Your task to perform on an android device: Open Yahoo.com Image 0: 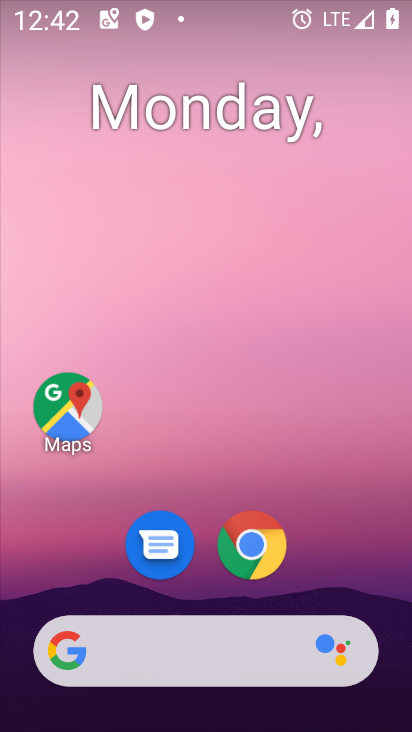
Step 0: drag from (389, 601) to (384, 246)
Your task to perform on an android device: Open Yahoo.com Image 1: 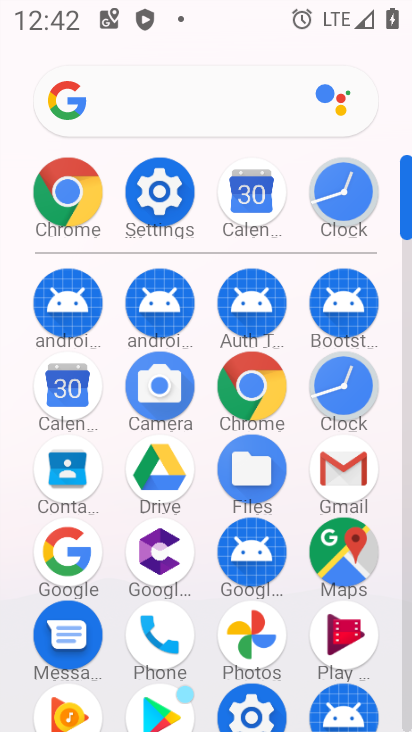
Step 1: click (259, 415)
Your task to perform on an android device: Open Yahoo.com Image 2: 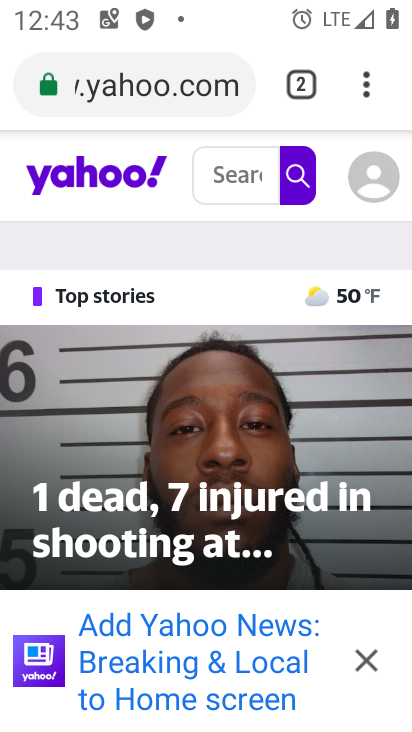
Step 2: task complete